Your task to perform on an android device: visit the assistant section in the google photos Image 0: 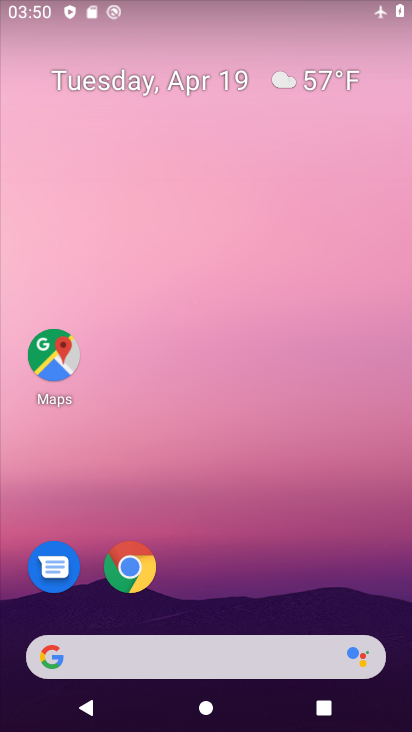
Step 0: drag from (332, 605) to (327, 304)
Your task to perform on an android device: visit the assistant section in the google photos Image 1: 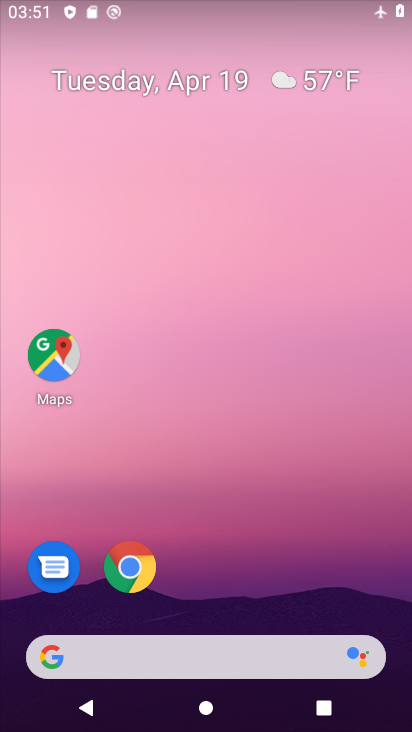
Step 1: drag from (297, 556) to (284, 186)
Your task to perform on an android device: visit the assistant section in the google photos Image 2: 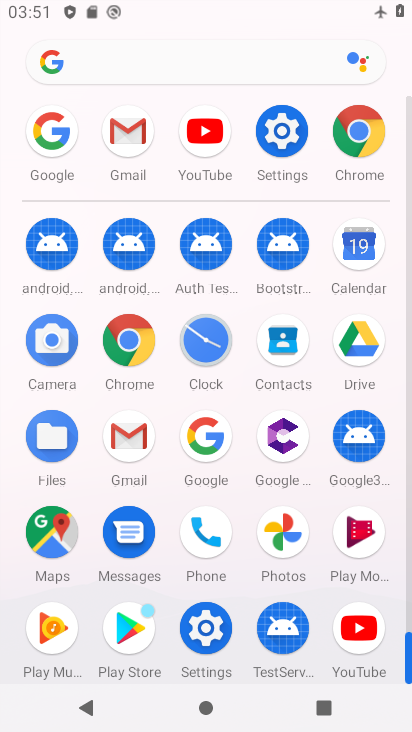
Step 2: click (282, 542)
Your task to perform on an android device: visit the assistant section in the google photos Image 3: 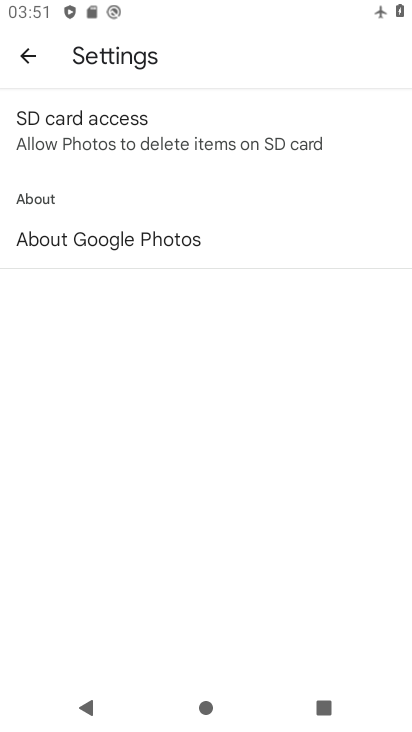
Step 3: click (26, 51)
Your task to perform on an android device: visit the assistant section in the google photos Image 4: 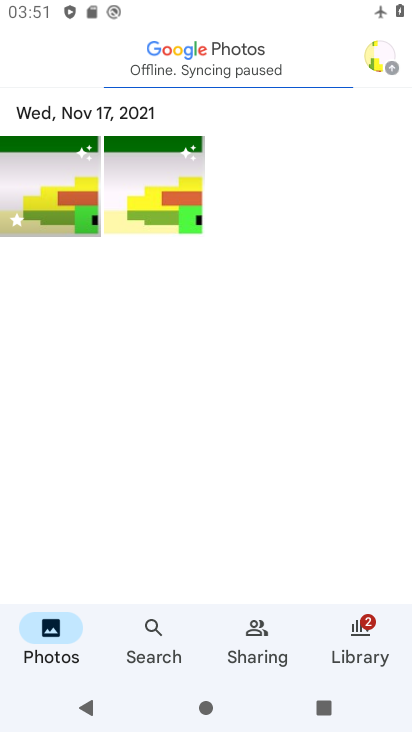
Step 4: click (355, 634)
Your task to perform on an android device: visit the assistant section in the google photos Image 5: 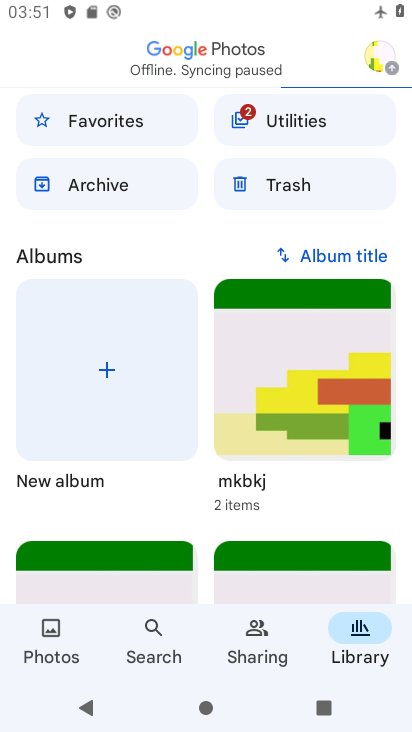
Step 5: drag from (186, 499) to (200, 259)
Your task to perform on an android device: visit the assistant section in the google photos Image 6: 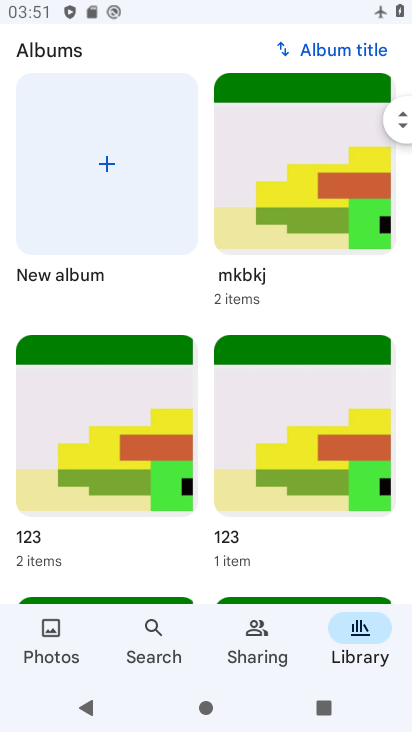
Step 6: drag from (189, 545) to (199, 326)
Your task to perform on an android device: visit the assistant section in the google photos Image 7: 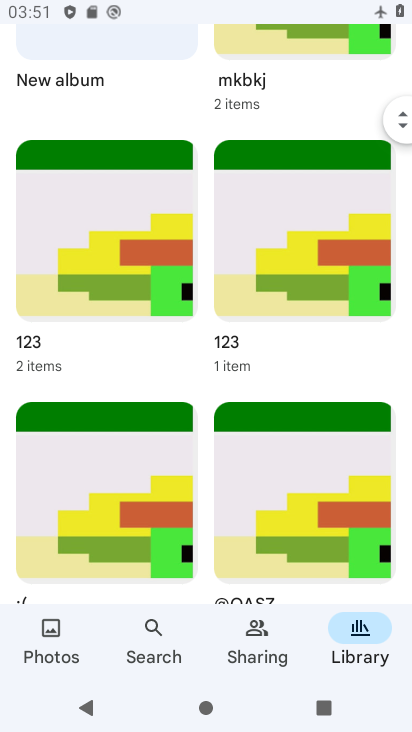
Step 7: drag from (194, 558) to (195, 335)
Your task to perform on an android device: visit the assistant section in the google photos Image 8: 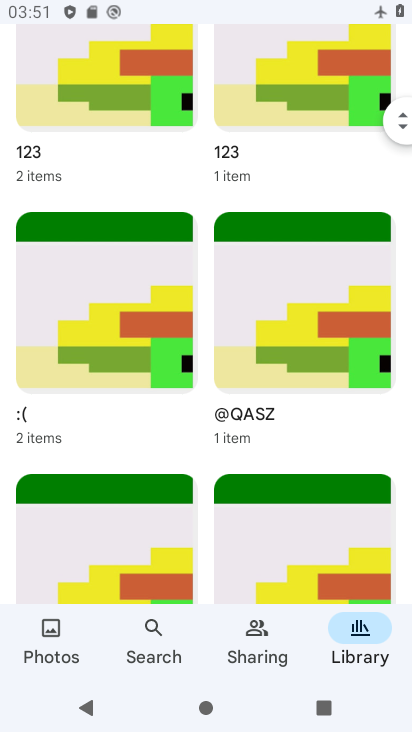
Step 8: drag from (201, 515) to (192, 280)
Your task to perform on an android device: visit the assistant section in the google photos Image 9: 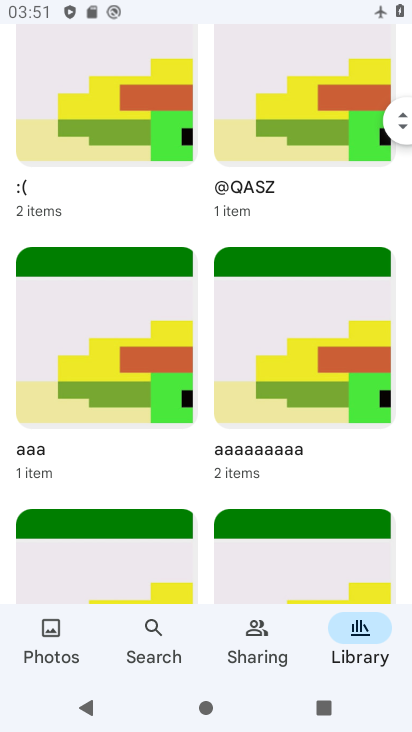
Step 9: drag from (202, 527) to (185, 320)
Your task to perform on an android device: visit the assistant section in the google photos Image 10: 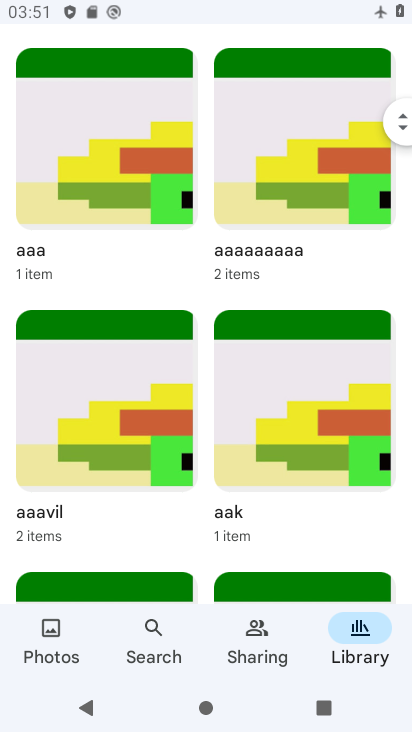
Step 10: drag from (201, 558) to (206, 362)
Your task to perform on an android device: visit the assistant section in the google photos Image 11: 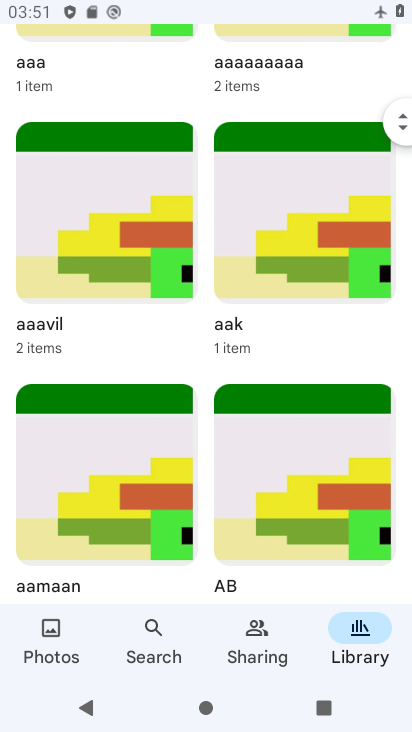
Step 11: drag from (191, 578) to (210, 387)
Your task to perform on an android device: visit the assistant section in the google photos Image 12: 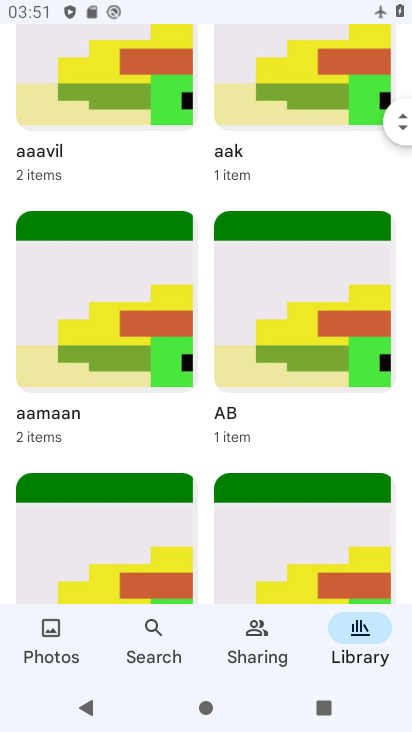
Step 12: click (160, 643)
Your task to perform on an android device: visit the assistant section in the google photos Image 13: 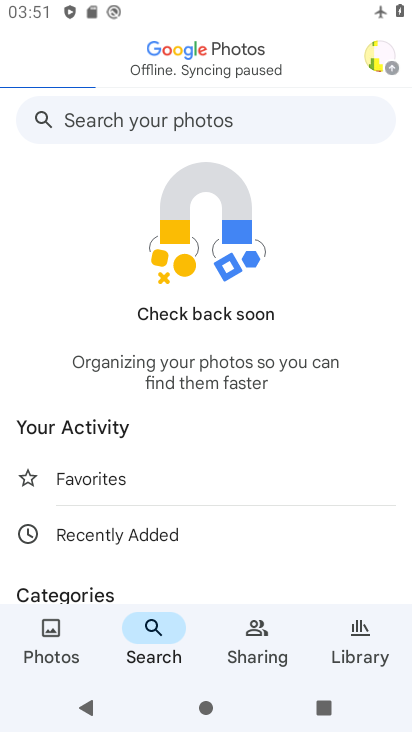
Step 13: drag from (243, 495) to (269, 306)
Your task to perform on an android device: visit the assistant section in the google photos Image 14: 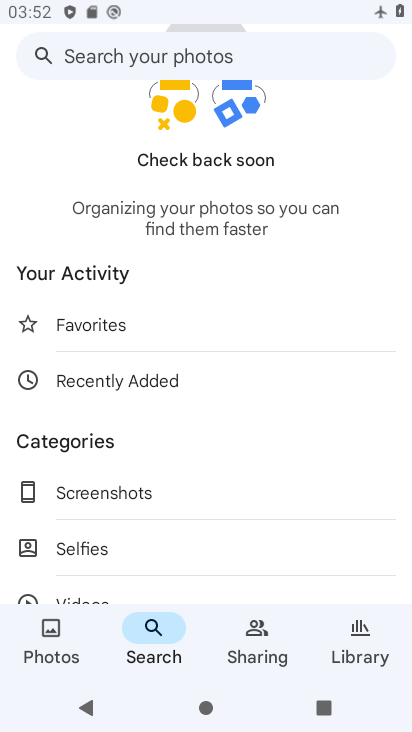
Step 14: click (282, 52)
Your task to perform on an android device: visit the assistant section in the google photos Image 15: 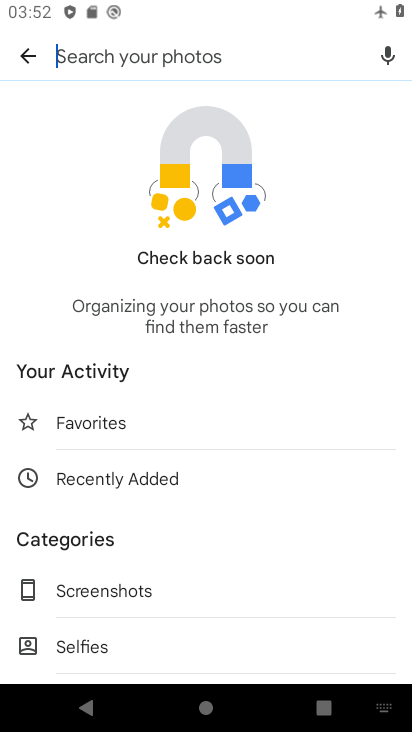
Step 15: type " assistant"
Your task to perform on an android device: visit the assistant section in the google photos Image 16: 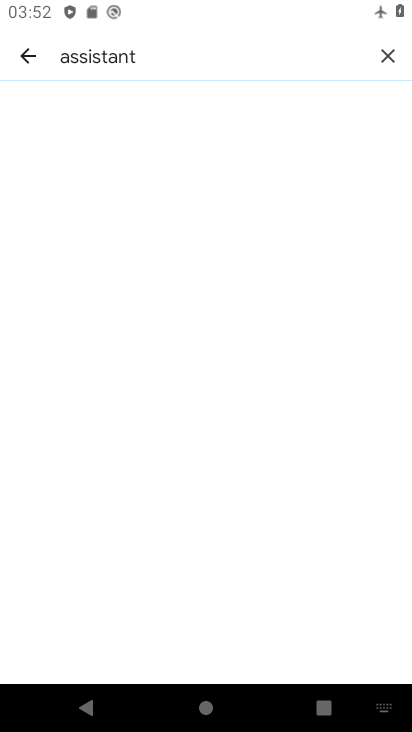
Step 16: click (22, 49)
Your task to perform on an android device: visit the assistant section in the google photos Image 17: 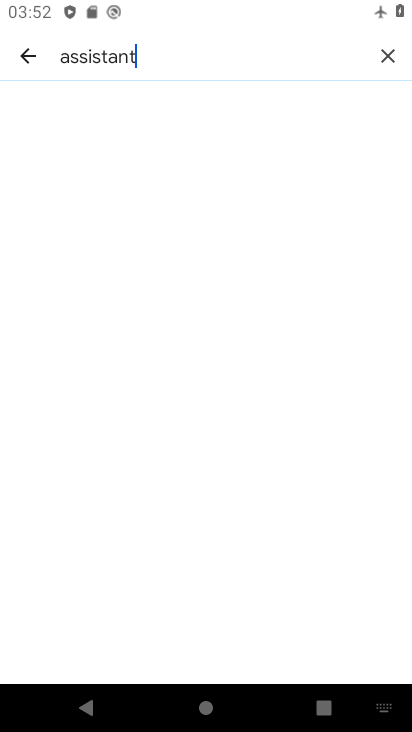
Step 17: click (25, 51)
Your task to perform on an android device: visit the assistant section in the google photos Image 18: 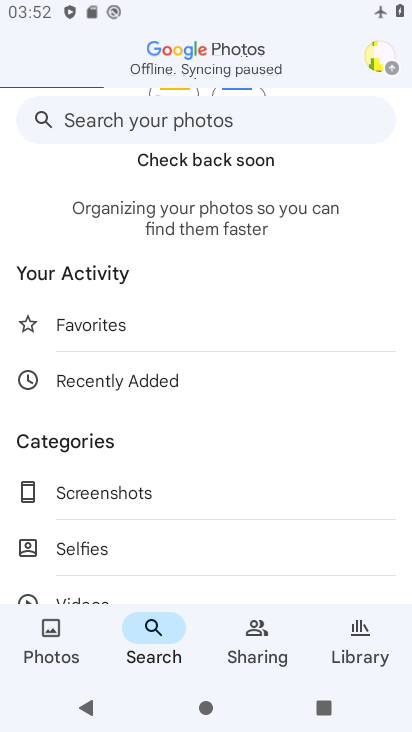
Step 18: task complete